Your task to perform on an android device: open device folders in google photos Image 0: 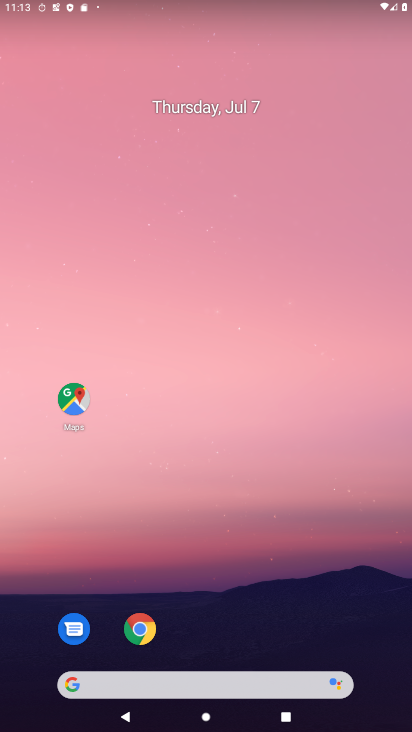
Step 0: drag from (265, 569) to (249, 180)
Your task to perform on an android device: open device folders in google photos Image 1: 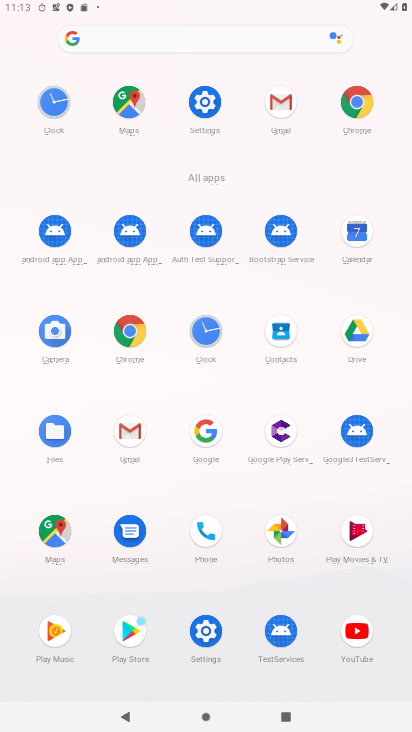
Step 1: click (286, 537)
Your task to perform on an android device: open device folders in google photos Image 2: 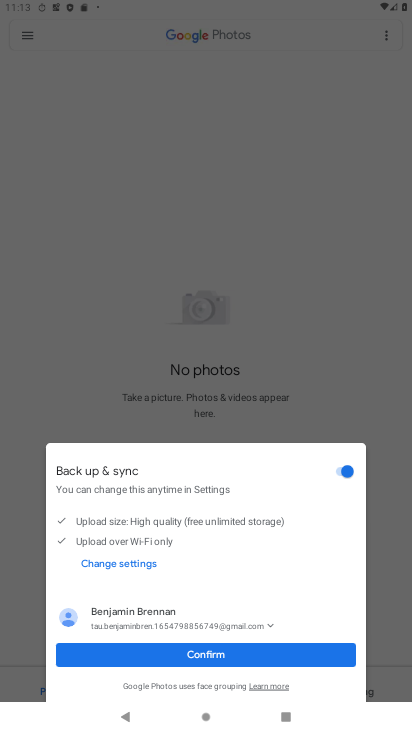
Step 2: click (326, 664)
Your task to perform on an android device: open device folders in google photos Image 3: 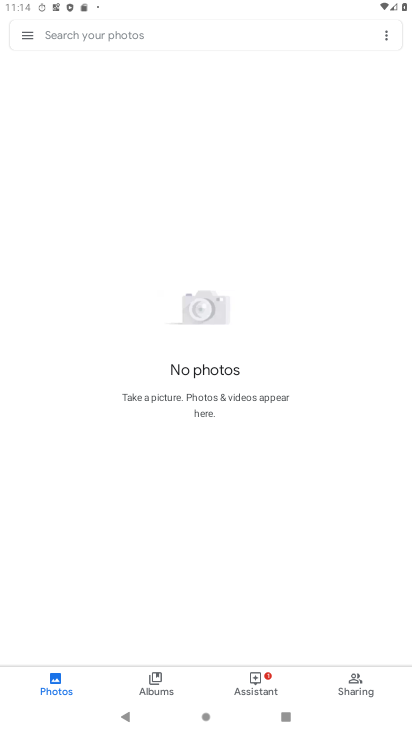
Step 3: click (29, 34)
Your task to perform on an android device: open device folders in google photos Image 4: 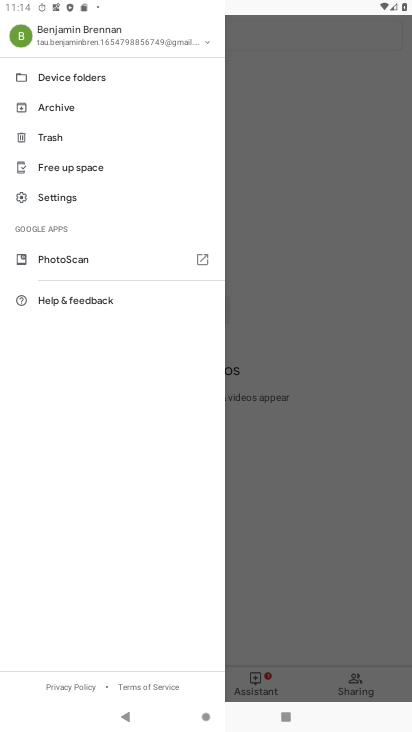
Step 4: click (36, 82)
Your task to perform on an android device: open device folders in google photos Image 5: 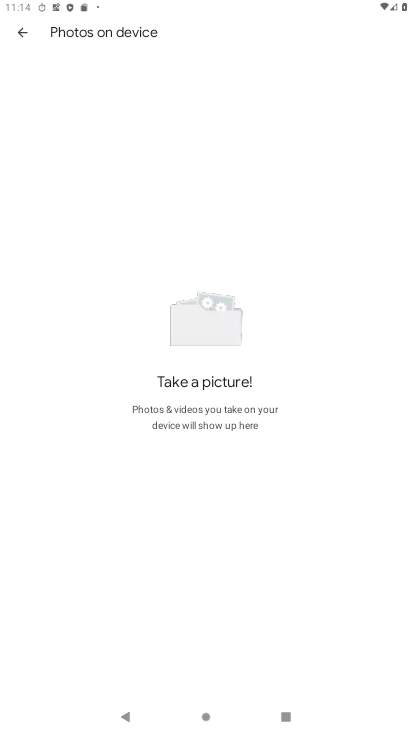
Step 5: task complete